Your task to perform on an android device: Open Yahoo.com Image 0: 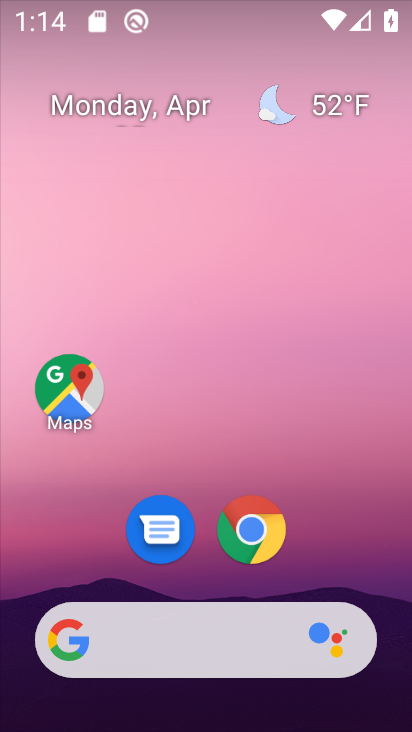
Step 0: click (237, 529)
Your task to perform on an android device: Open Yahoo.com Image 1: 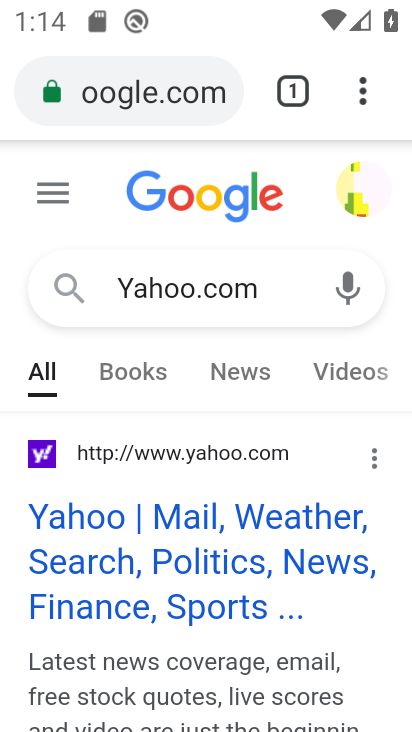
Step 1: press home button
Your task to perform on an android device: Open Yahoo.com Image 2: 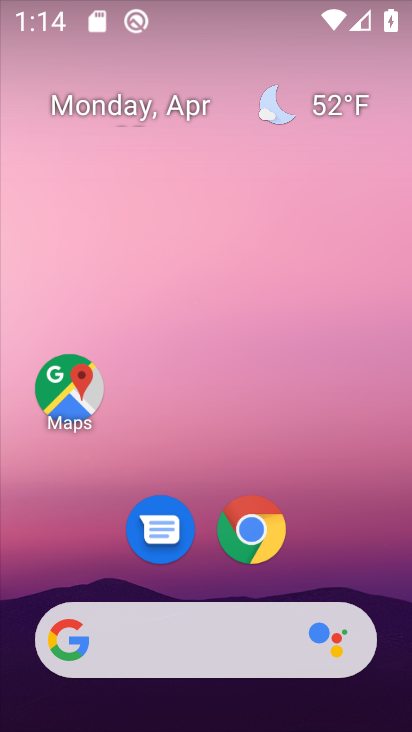
Step 2: click (259, 525)
Your task to perform on an android device: Open Yahoo.com Image 3: 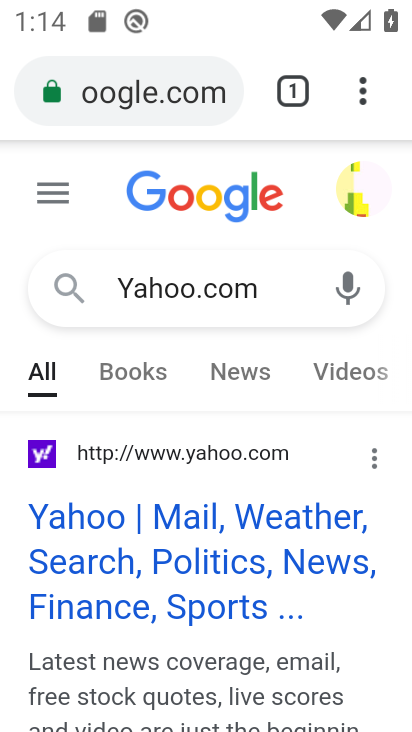
Step 3: click (359, 81)
Your task to perform on an android device: Open Yahoo.com Image 4: 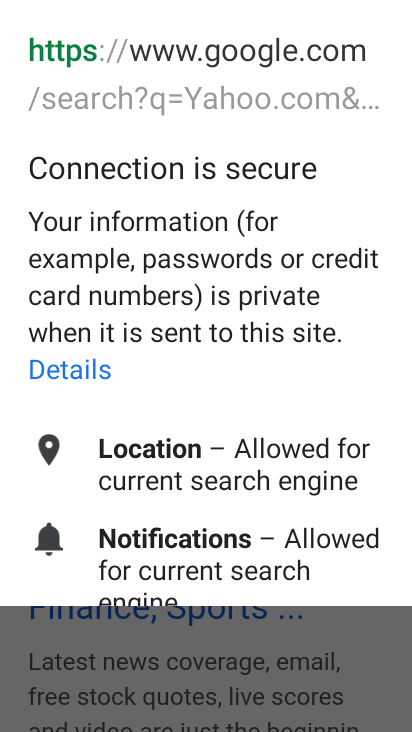
Step 4: drag from (321, 560) to (316, 121)
Your task to perform on an android device: Open Yahoo.com Image 5: 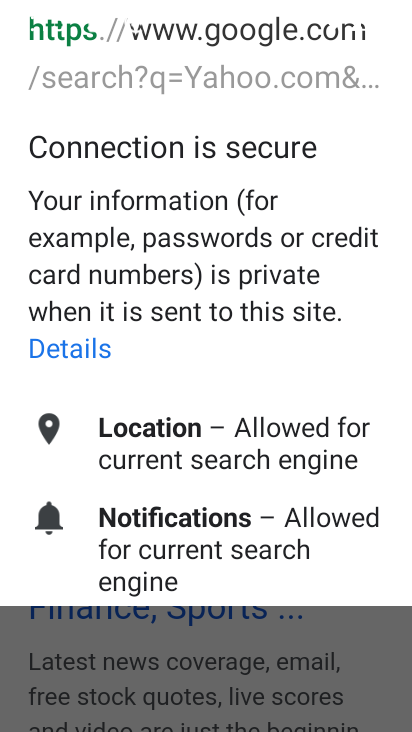
Step 5: click (306, 67)
Your task to perform on an android device: Open Yahoo.com Image 6: 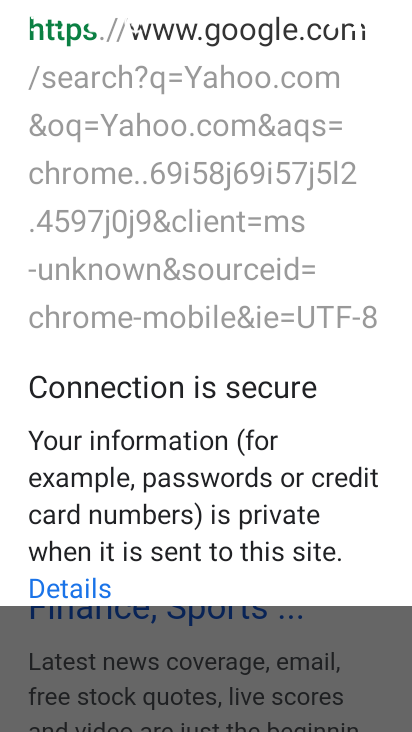
Step 6: press home button
Your task to perform on an android device: Open Yahoo.com Image 7: 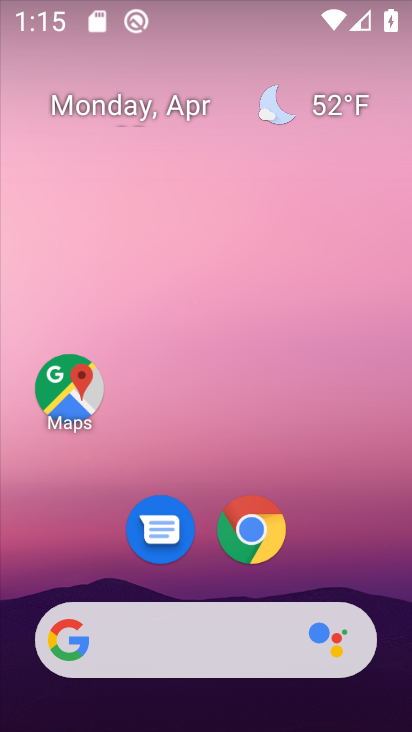
Step 7: drag from (393, 439) to (380, 254)
Your task to perform on an android device: Open Yahoo.com Image 8: 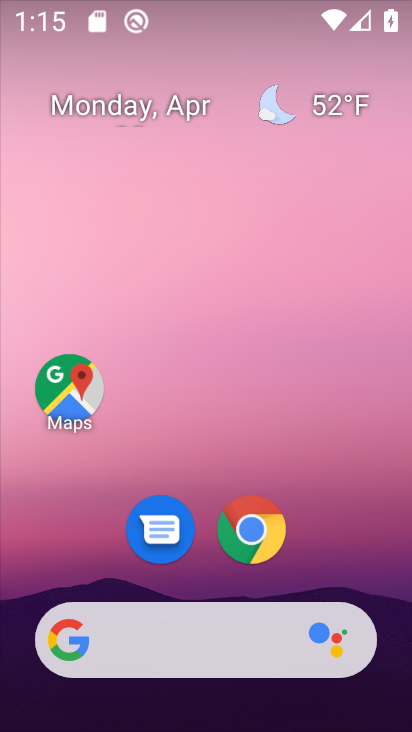
Step 8: drag from (383, 232) to (377, 150)
Your task to perform on an android device: Open Yahoo.com Image 9: 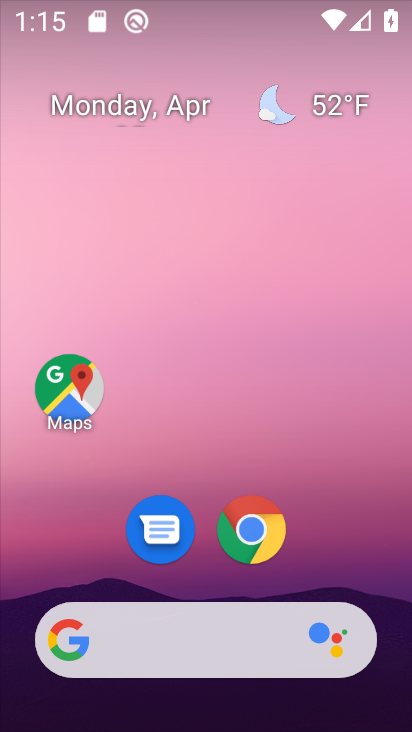
Step 9: drag from (378, 298) to (360, 133)
Your task to perform on an android device: Open Yahoo.com Image 10: 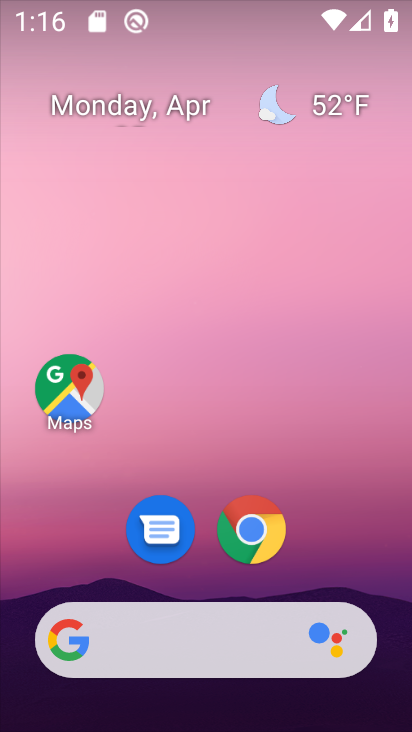
Step 10: drag from (400, 596) to (380, 120)
Your task to perform on an android device: Open Yahoo.com Image 11: 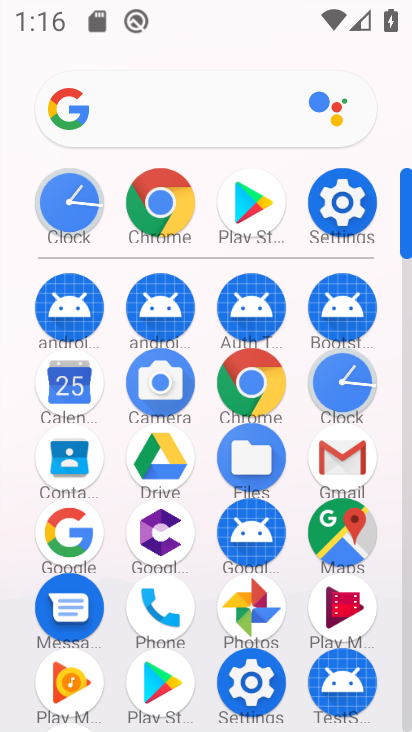
Step 11: click (139, 206)
Your task to perform on an android device: Open Yahoo.com Image 12: 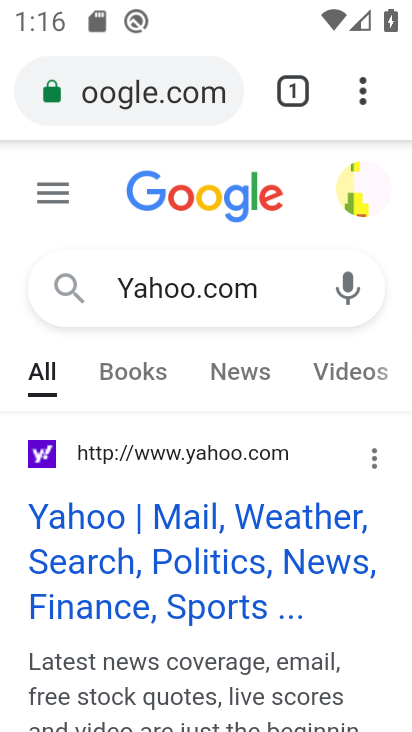
Step 12: click (355, 92)
Your task to perform on an android device: Open Yahoo.com Image 13: 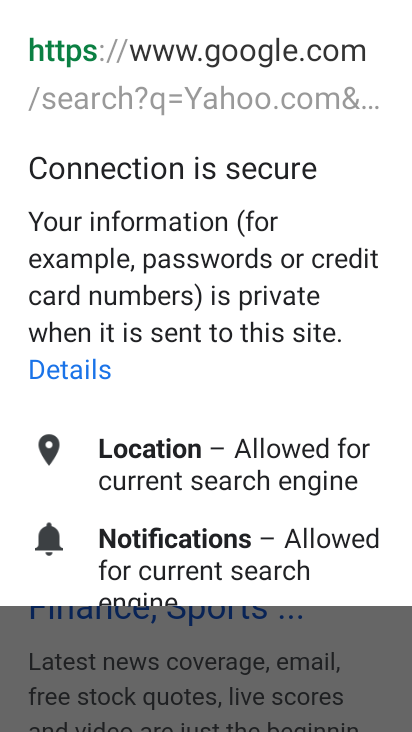
Step 13: task complete